Your task to perform on an android device: Open Wikipedia Image 0: 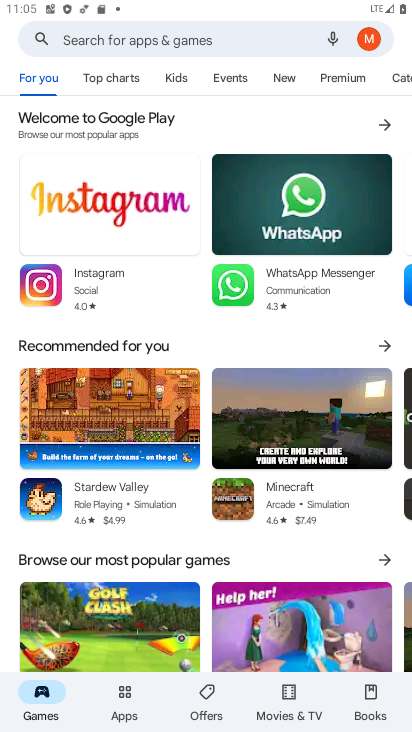
Step 0: press home button
Your task to perform on an android device: Open Wikipedia Image 1: 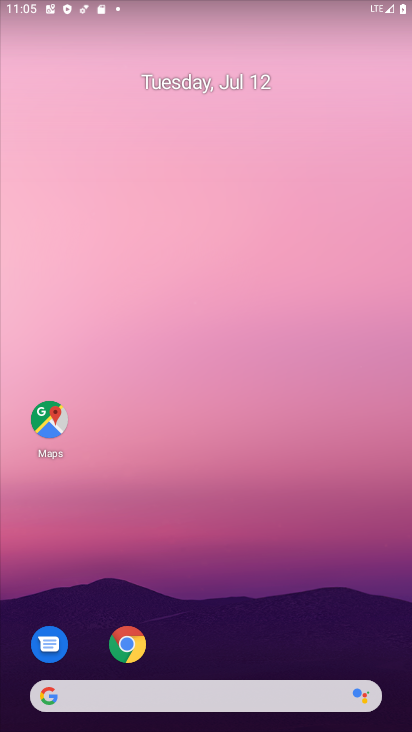
Step 1: click (134, 707)
Your task to perform on an android device: Open Wikipedia Image 2: 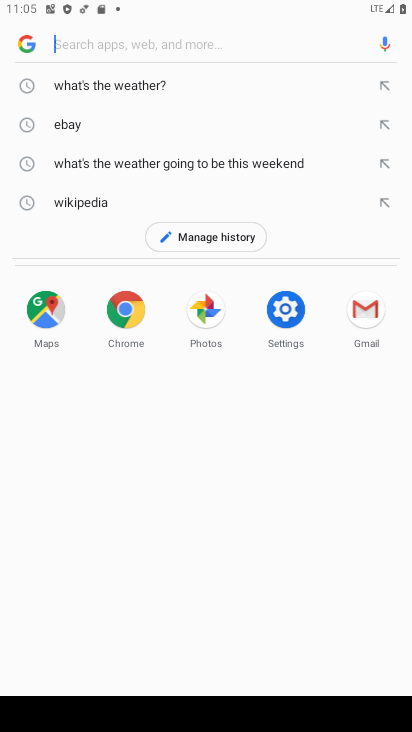
Step 2: click (90, 199)
Your task to perform on an android device: Open Wikipedia Image 3: 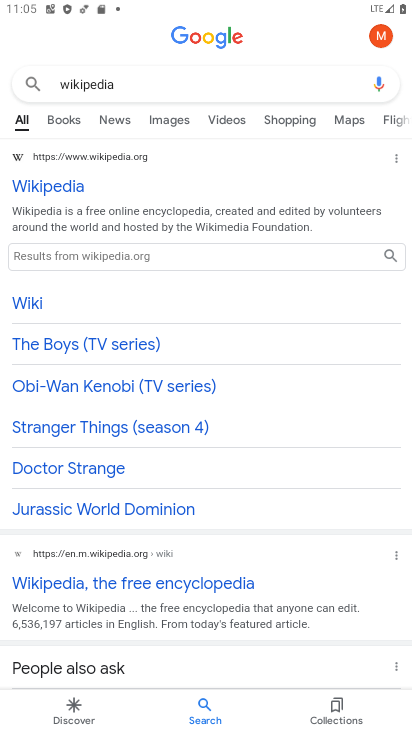
Step 3: click (61, 188)
Your task to perform on an android device: Open Wikipedia Image 4: 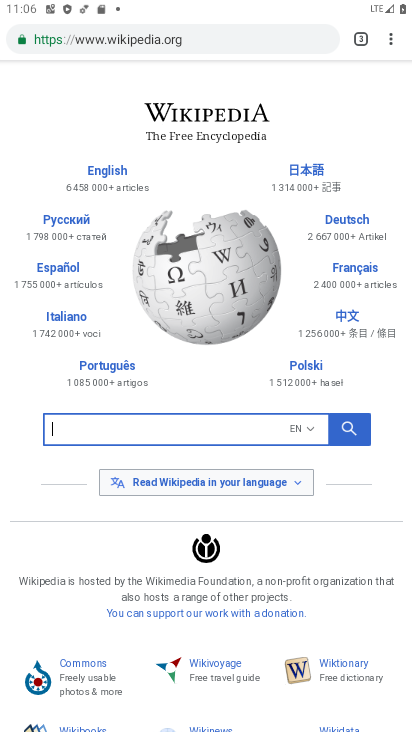
Step 4: task complete